Your task to perform on an android device: find photos in the google photos app Image 0: 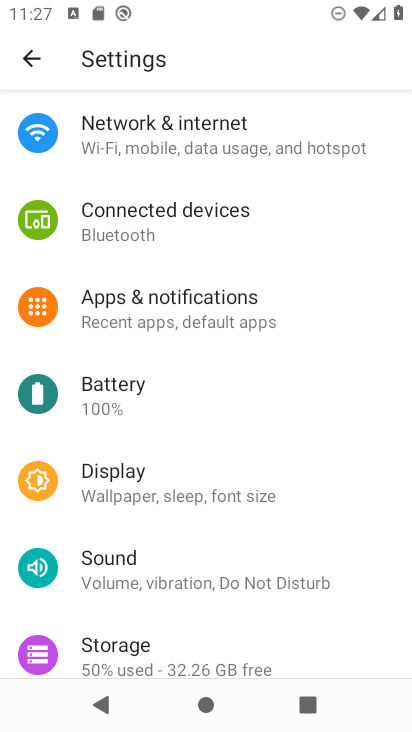
Step 0: press home button
Your task to perform on an android device: find photos in the google photos app Image 1: 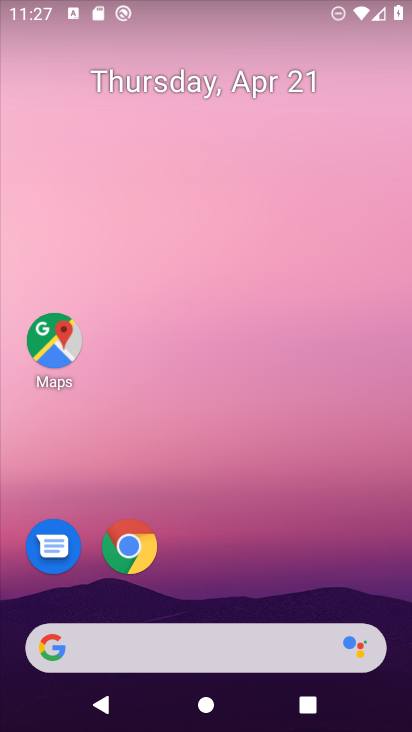
Step 1: drag from (348, 583) to (311, 61)
Your task to perform on an android device: find photos in the google photos app Image 2: 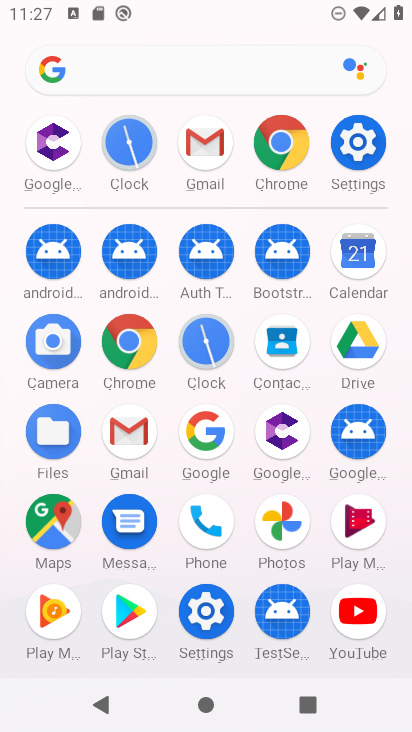
Step 2: click (275, 519)
Your task to perform on an android device: find photos in the google photos app Image 3: 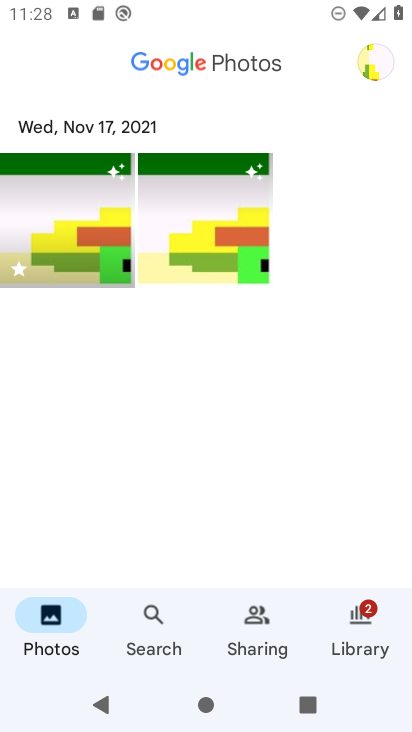
Step 3: task complete